Your task to perform on an android device: change the clock display to analog Image 0: 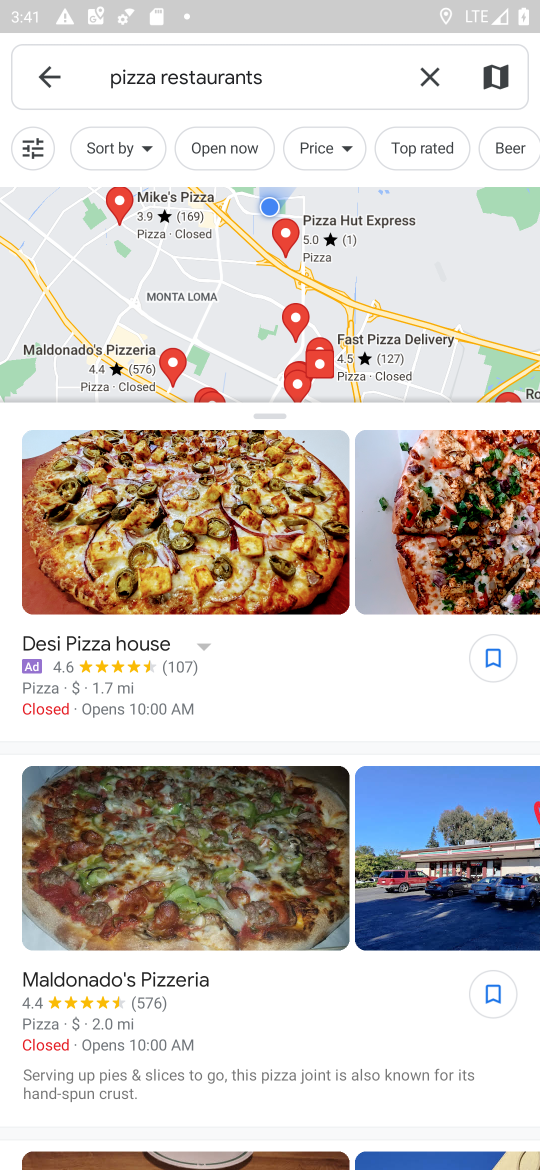
Step 0: press home button
Your task to perform on an android device: change the clock display to analog Image 1: 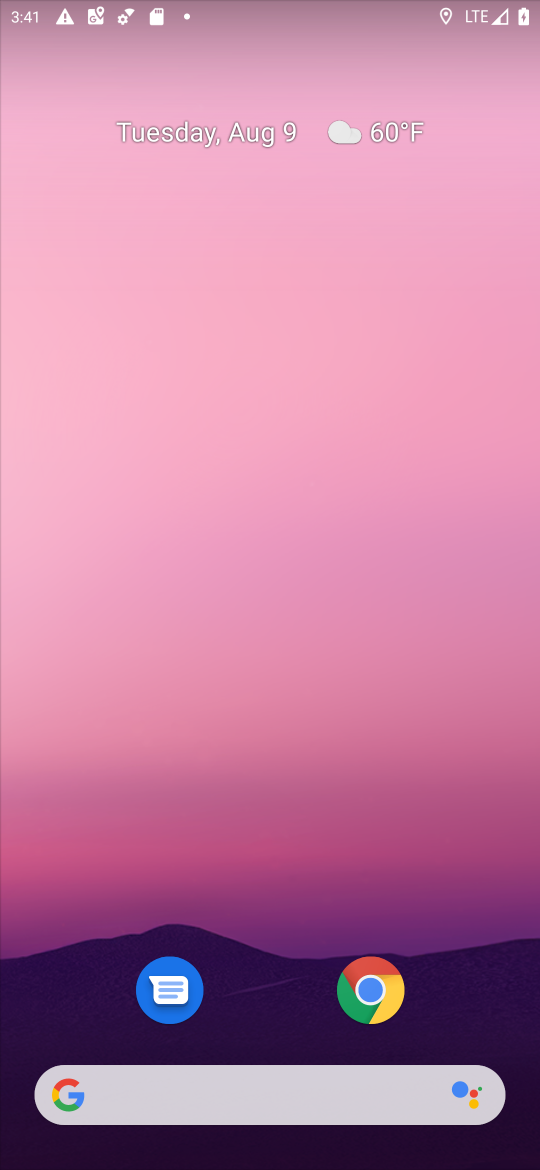
Step 1: drag from (225, 1099) to (340, 26)
Your task to perform on an android device: change the clock display to analog Image 2: 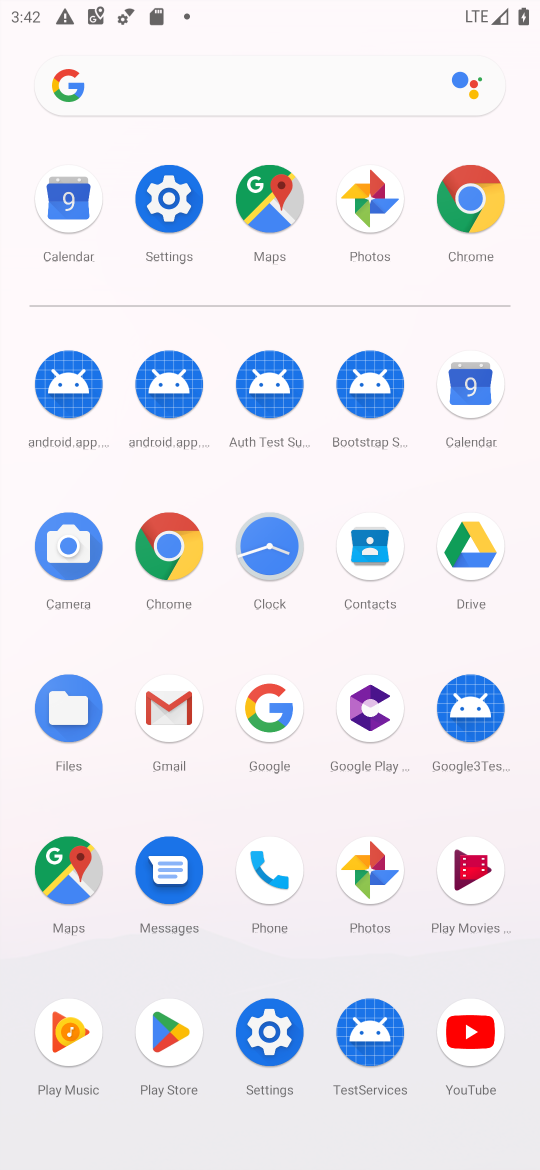
Step 2: click (282, 539)
Your task to perform on an android device: change the clock display to analog Image 3: 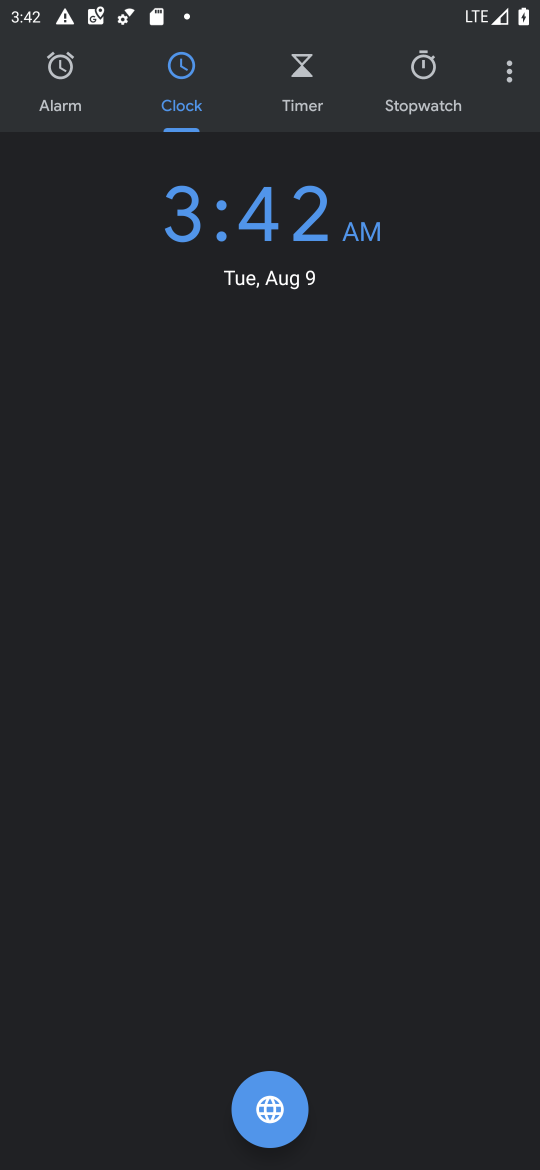
Step 3: click (511, 54)
Your task to perform on an android device: change the clock display to analog Image 4: 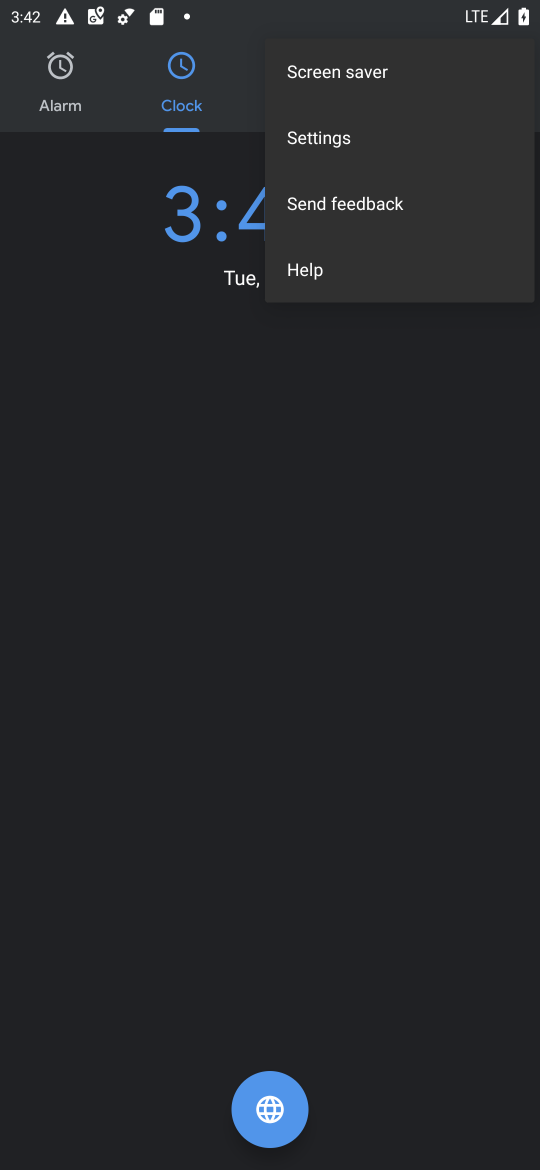
Step 4: click (344, 150)
Your task to perform on an android device: change the clock display to analog Image 5: 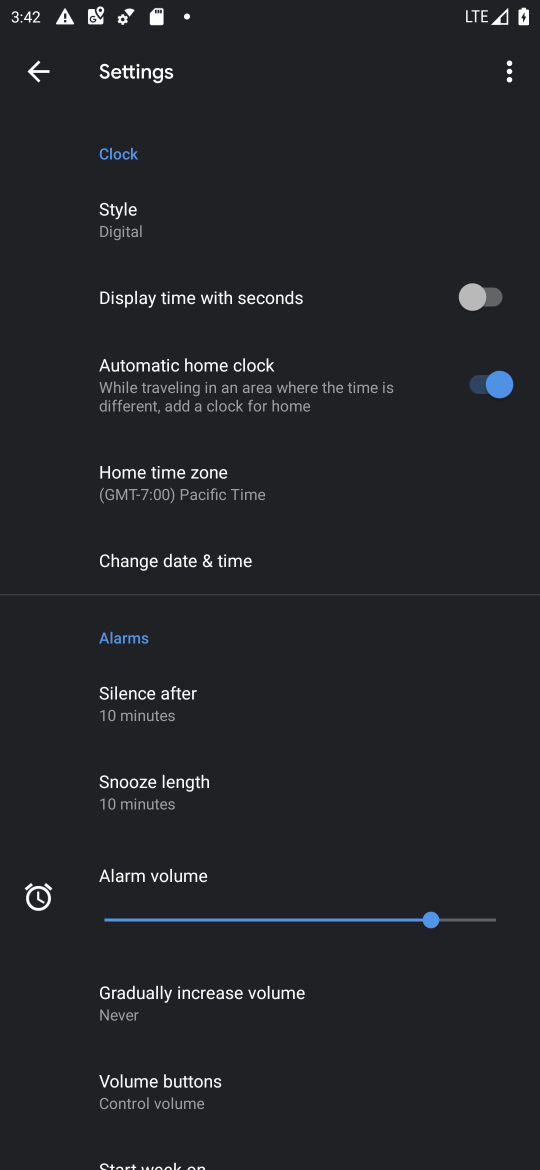
Step 5: click (130, 231)
Your task to perform on an android device: change the clock display to analog Image 6: 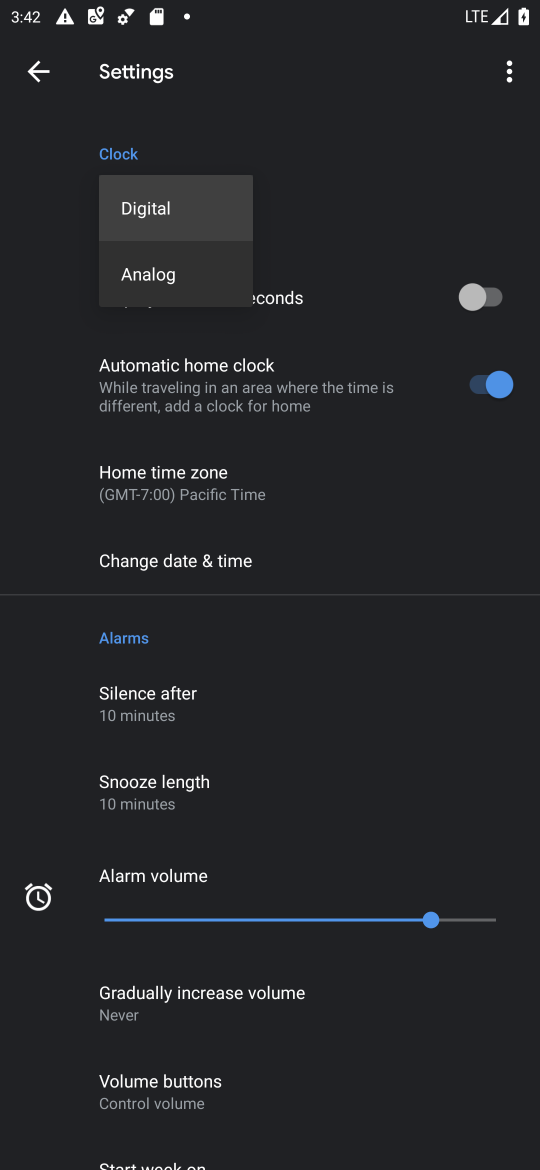
Step 6: click (134, 256)
Your task to perform on an android device: change the clock display to analog Image 7: 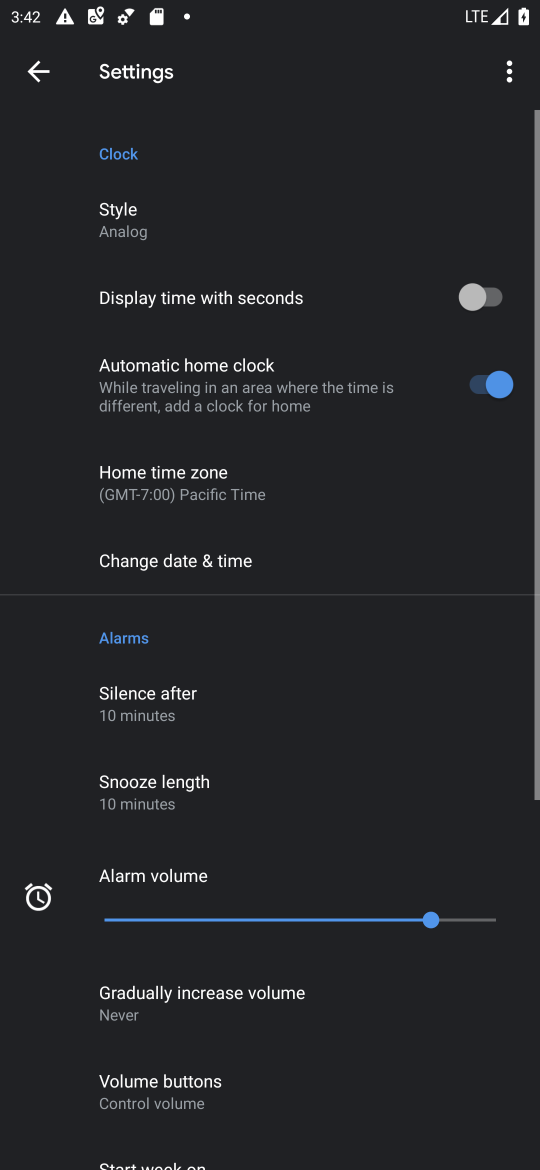
Step 7: task complete